Your task to perform on an android device: turn on javascript in the chrome app Image 0: 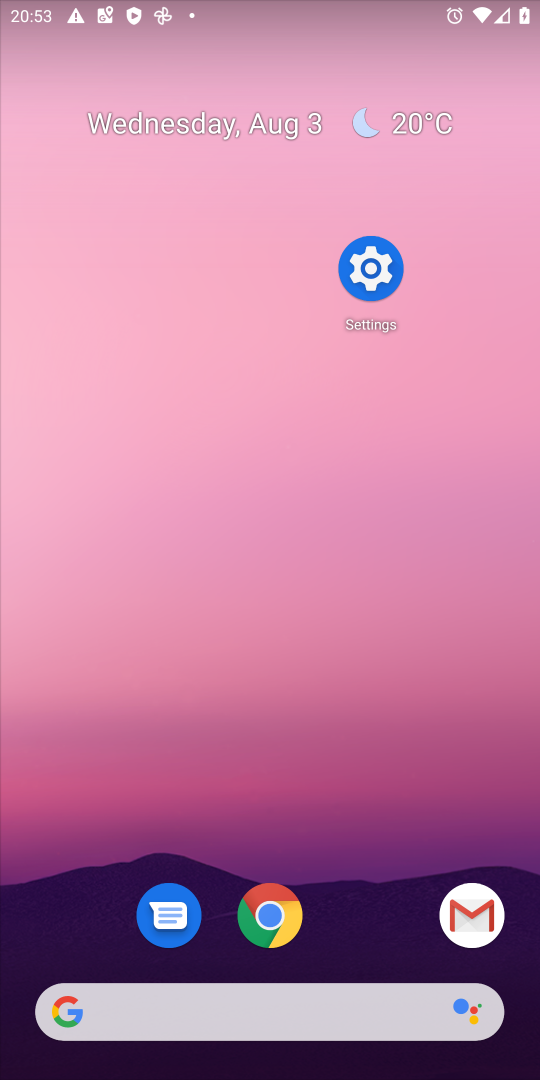
Step 0: press home button
Your task to perform on an android device: turn on javascript in the chrome app Image 1: 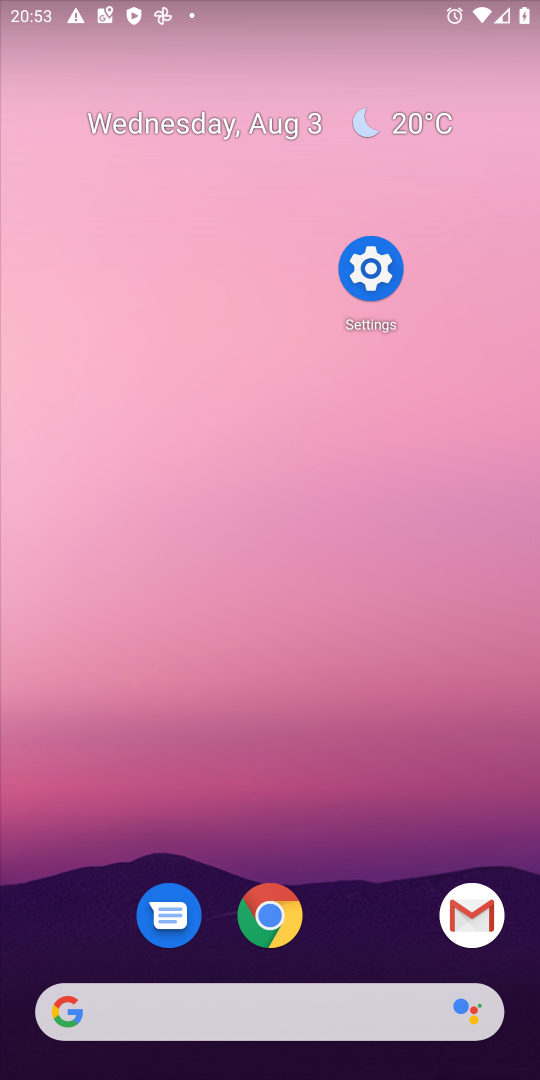
Step 1: drag from (350, 1045) to (194, 311)
Your task to perform on an android device: turn on javascript in the chrome app Image 2: 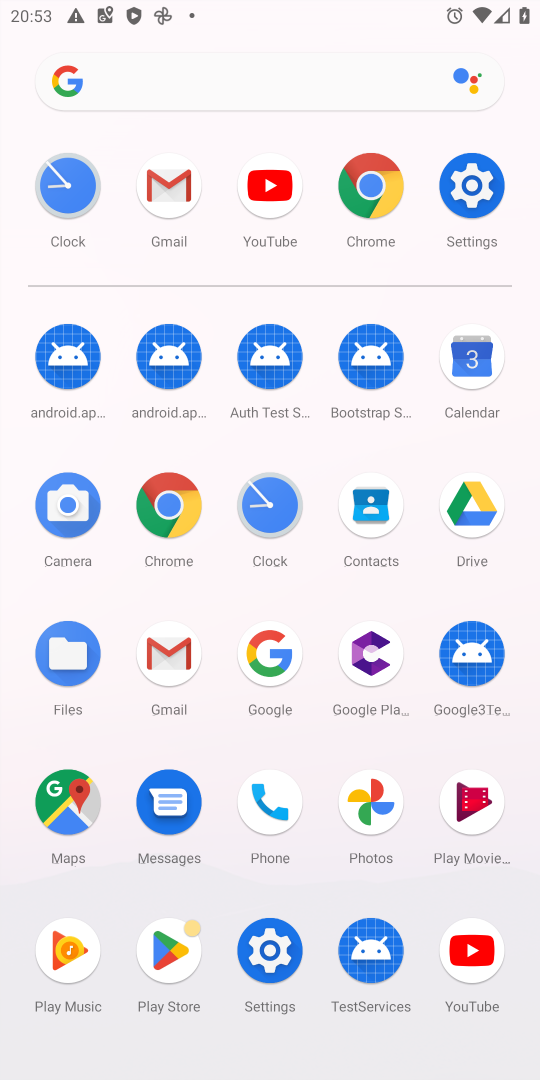
Step 2: click (381, 189)
Your task to perform on an android device: turn on javascript in the chrome app Image 3: 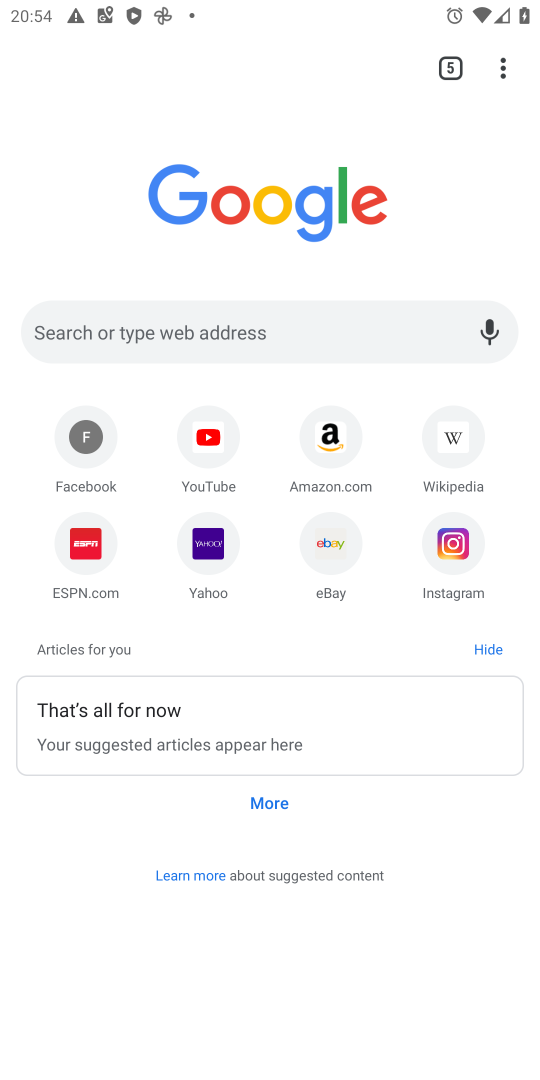
Step 3: click (503, 84)
Your task to perform on an android device: turn on javascript in the chrome app Image 4: 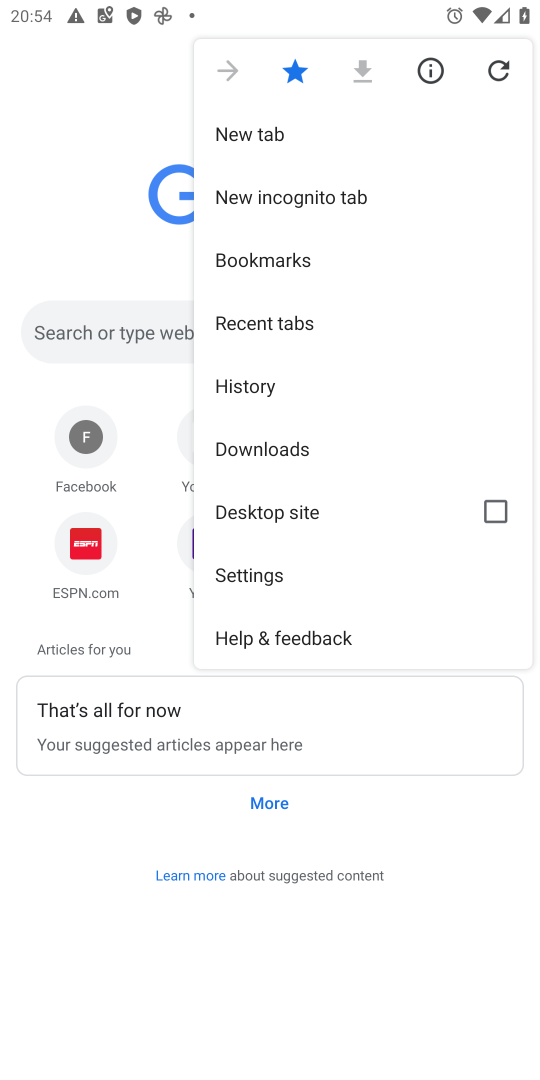
Step 4: click (291, 573)
Your task to perform on an android device: turn on javascript in the chrome app Image 5: 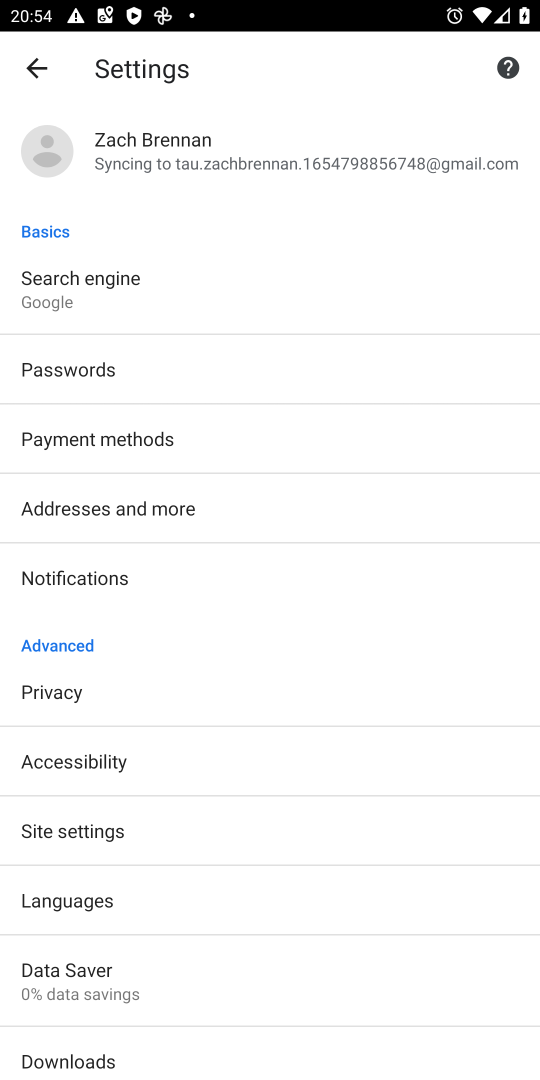
Step 5: click (137, 829)
Your task to perform on an android device: turn on javascript in the chrome app Image 6: 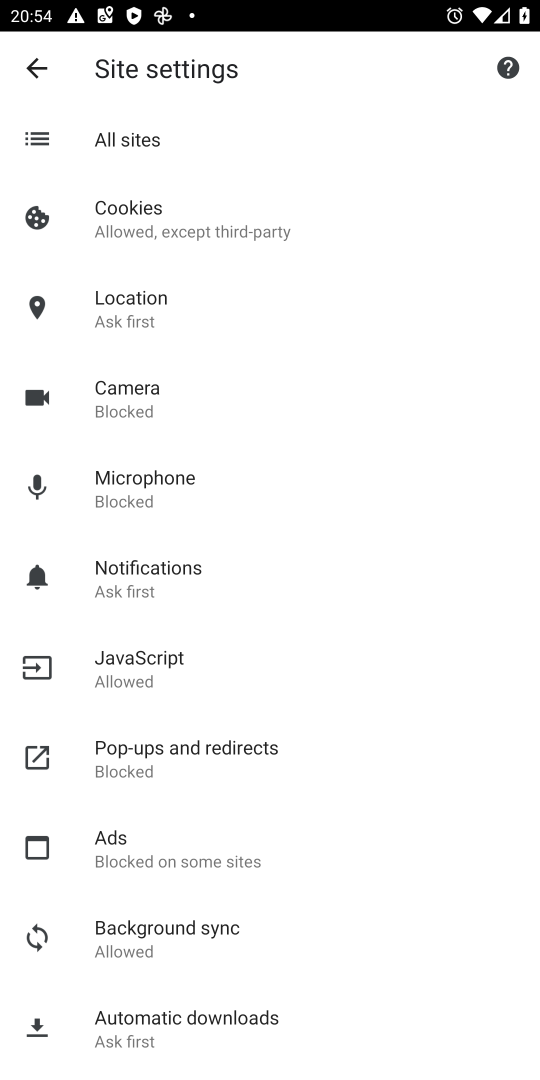
Step 6: click (190, 654)
Your task to perform on an android device: turn on javascript in the chrome app Image 7: 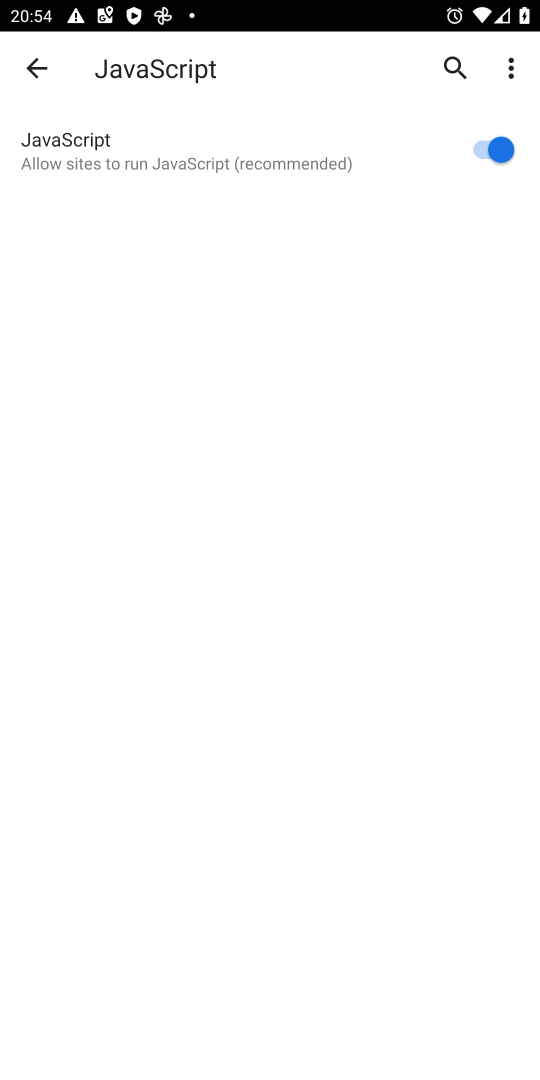
Step 7: click (267, 171)
Your task to perform on an android device: turn on javascript in the chrome app Image 8: 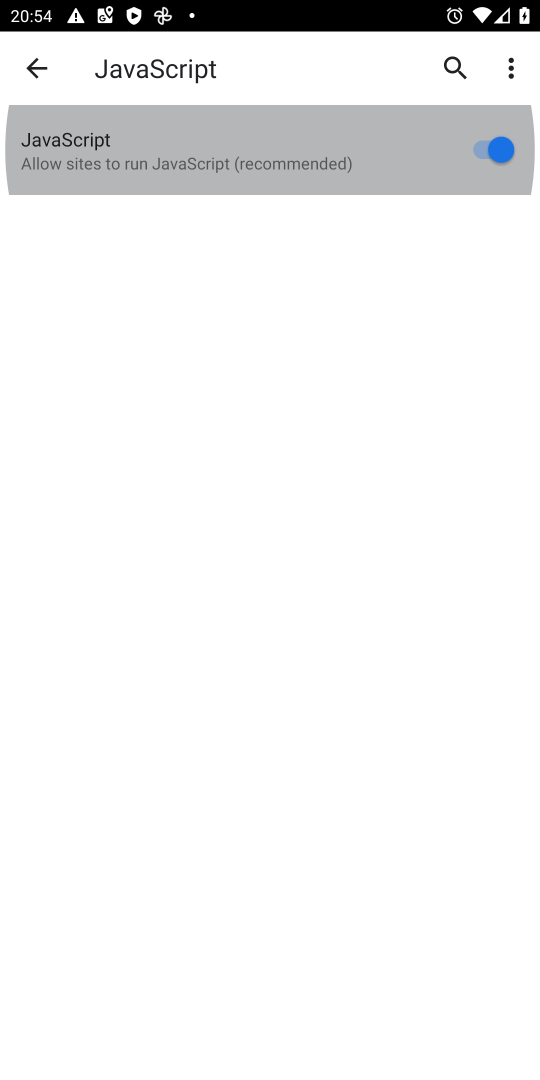
Step 8: click (267, 171)
Your task to perform on an android device: turn on javascript in the chrome app Image 9: 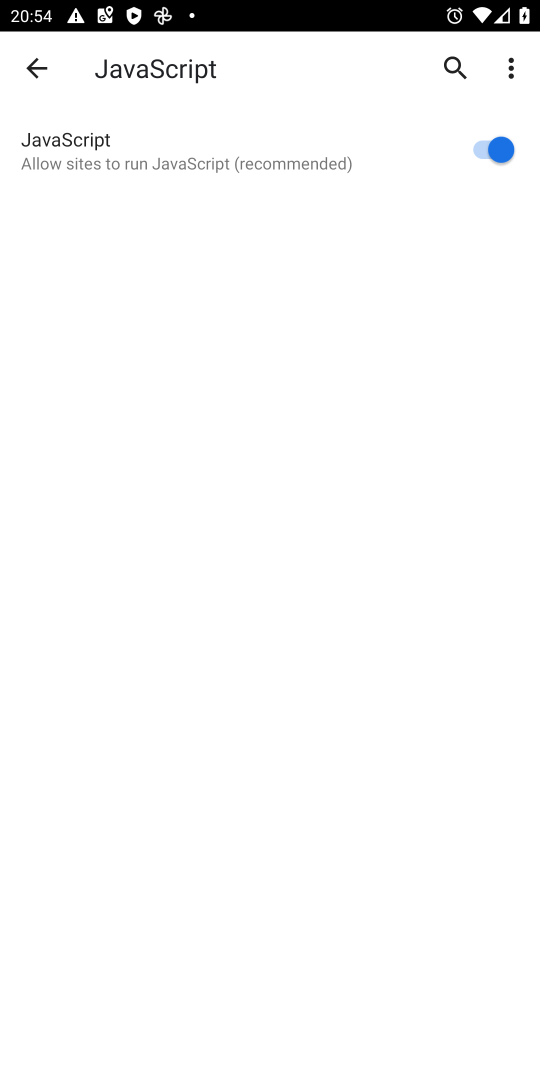
Step 9: task complete